Your task to perform on an android device: toggle translation in the chrome app Image 0: 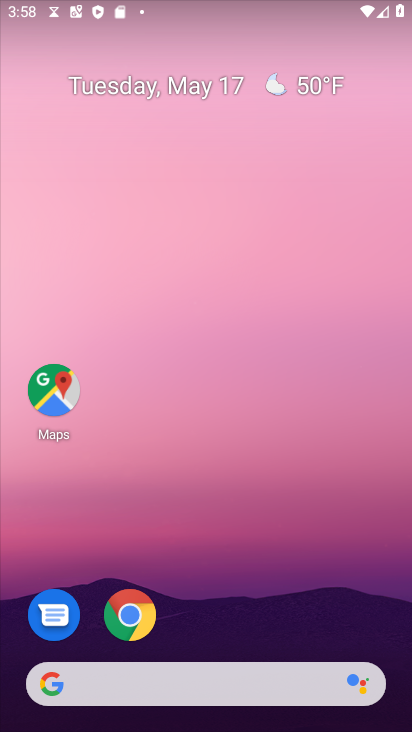
Step 0: drag from (276, 680) to (195, 168)
Your task to perform on an android device: toggle translation in the chrome app Image 1: 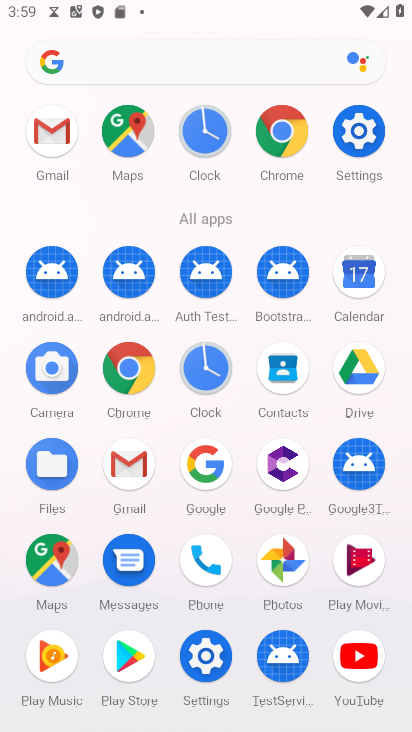
Step 1: click (280, 135)
Your task to perform on an android device: toggle translation in the chrome app Image 2: 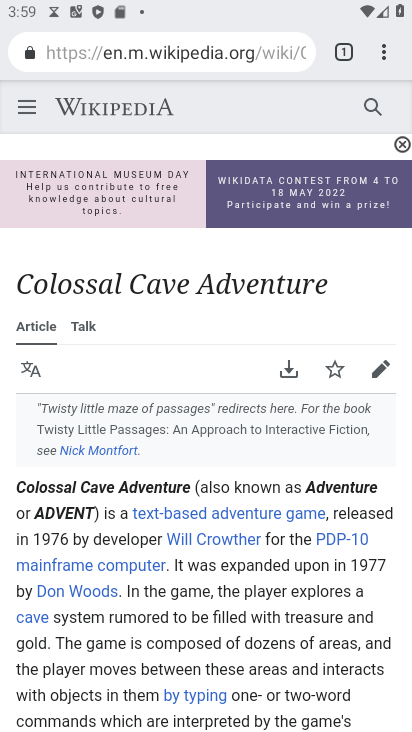
Step 2: drag from (382, 46) to (205, 637)
Your task to perform on an android device: toggle translation in the chrome app Image 3: 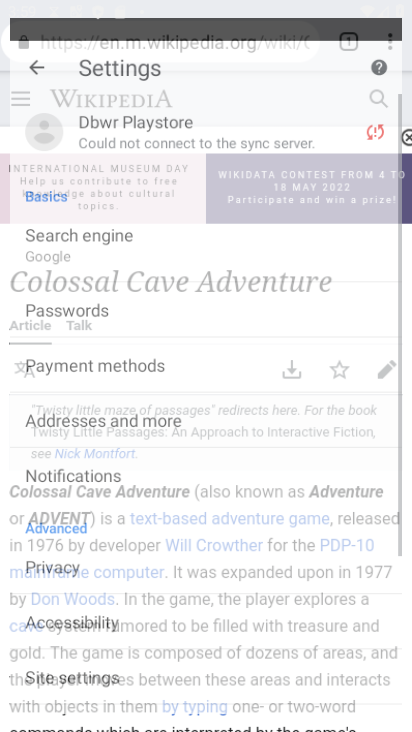
Step 3: click (204, 637)
Your task to perform on an android device: toggle translation in the chrome app Image 4: 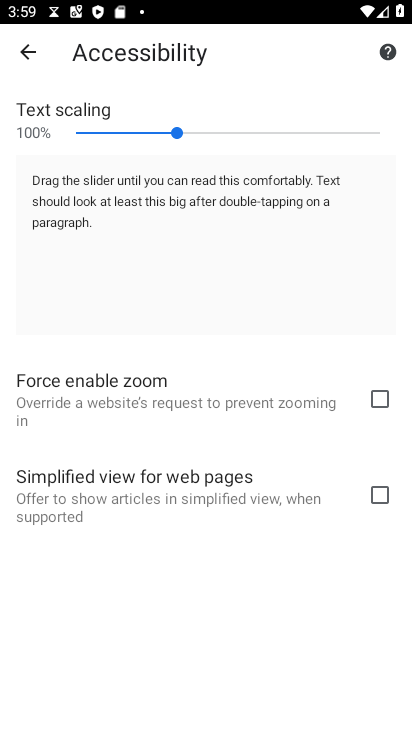
Step 4: click (24, 56)
Your task to perform on an android device: toggle translation in the chrome app Image 5: 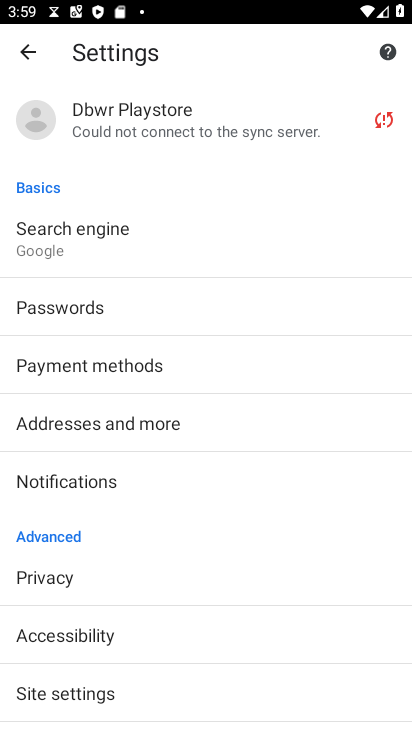
Step 5: drag from (61, 655) to (28, 293)
Your task to perform on an android device: toggle translation in the chrome app Image 6: 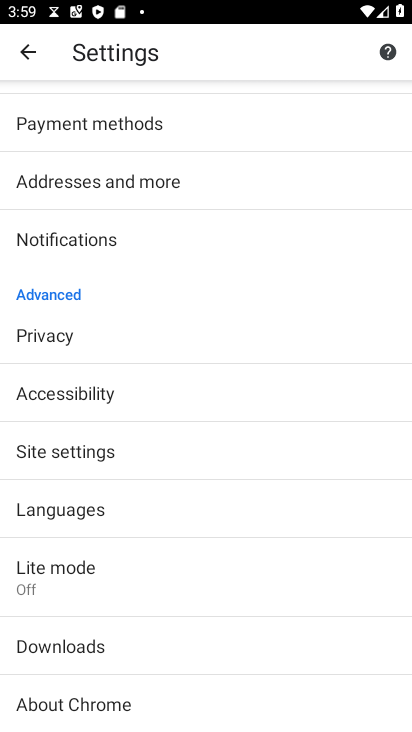
Step 6: click (49, 506)
Your task to perform on an android device: toggle translation in the chrome app Image 7: 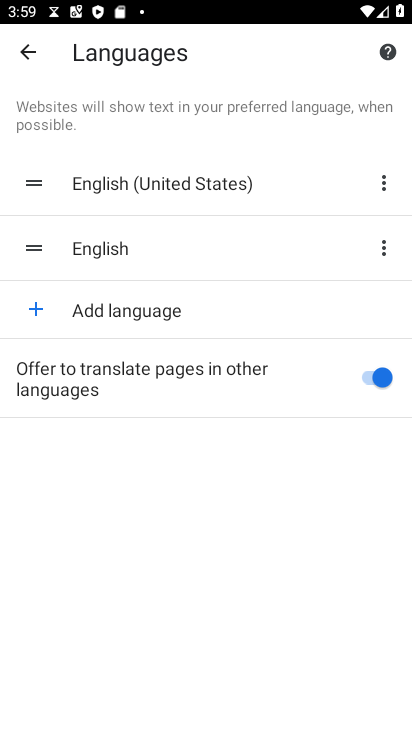
Step 7: click (386, 368)
Your task to perform on an android device: toggle translation in the chrome app Image 8: 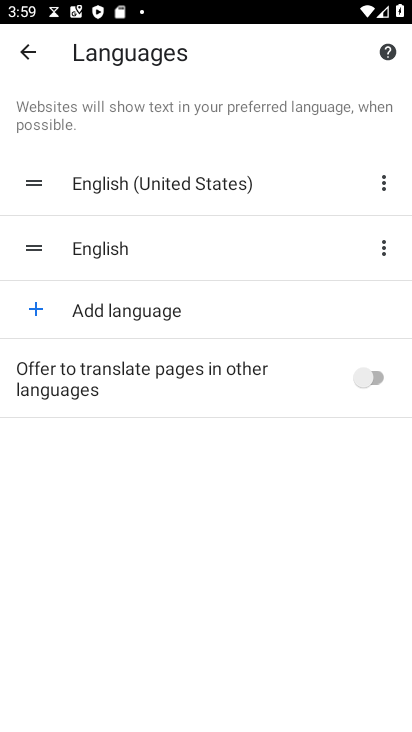
Step 8: task complete